Your task to perform on an android device: make emails show in primary in the gmail app Image 0: 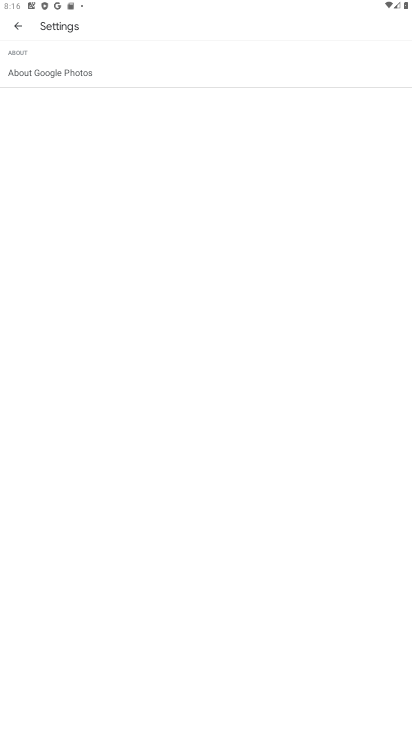
Step 0: press home button
Your task to perform on an android device: make emails show in primary in the gmail app Image 1: 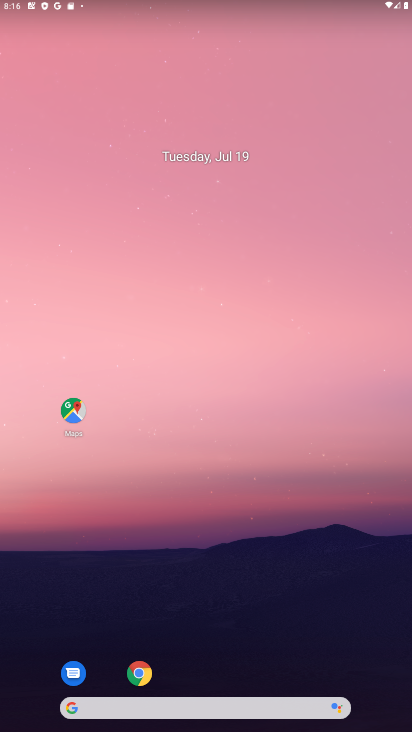
Step 1: drag from (242, 674) to (233, 348)
Your task to perform on an android device: make emails show in primary in the gmail app Image 2: 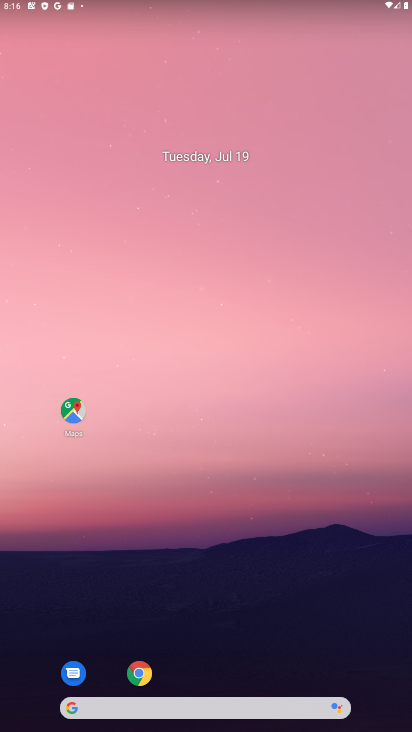
Step 2: drag from (243, 656) to (234, 100)
Your task to perform on an android device: make emails show in primary in the gmail app Image 3: 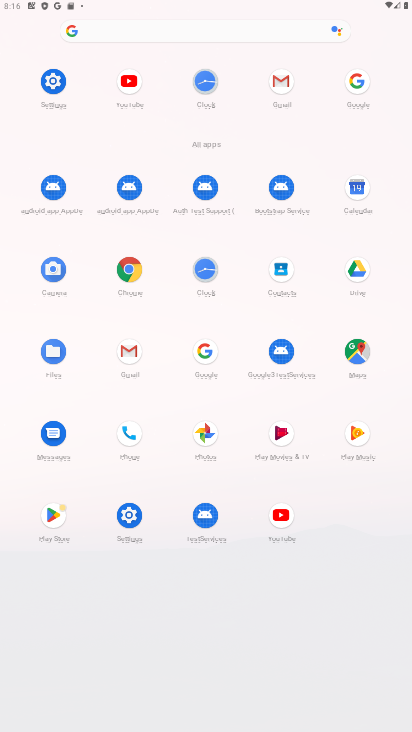
Step 3: click (278, 84)
Your task to perform on an android device: make emails show in primary in the gmail app Image 4: 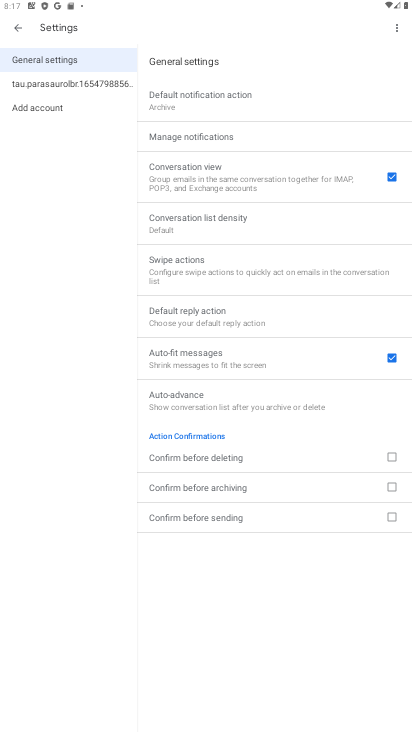
Step 4: task complete